Your task to perform on an android device: turn off location Image 0: 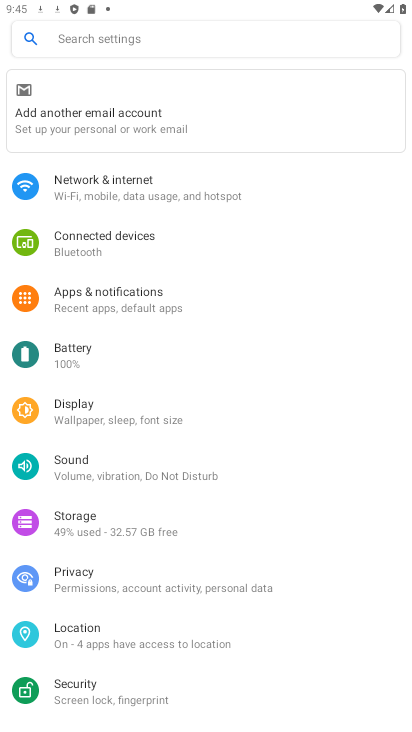
Step 0: press home button
Your task to perform on an android device: turn off location Image 1: 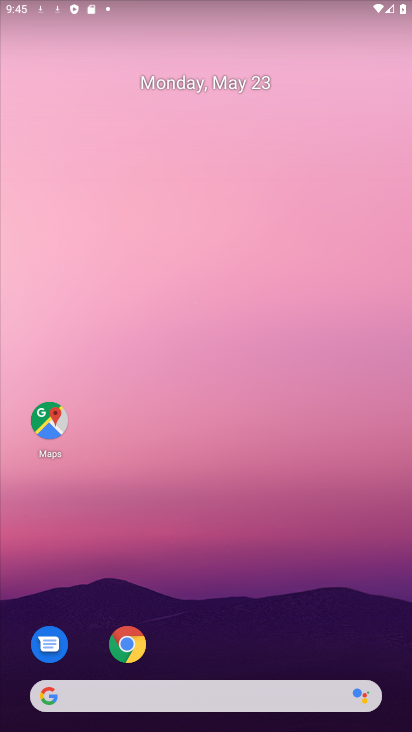
Step 1: drag from (254, 675) to (200, 171)
Your task to perform on an android device: turn off location Image 2: 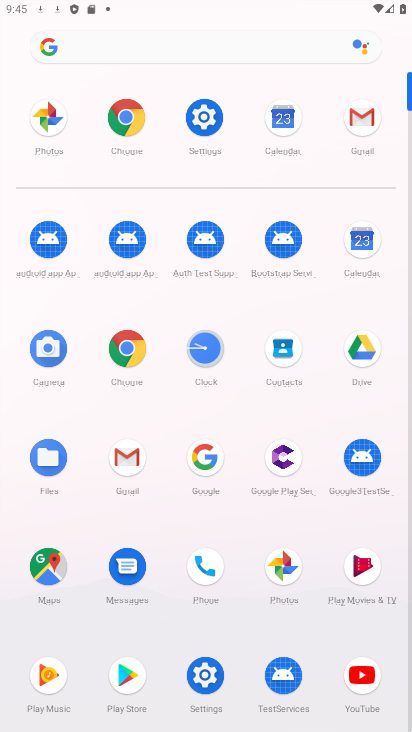
Step 2: click (196, 134)
Your task to perform on an android device: turn off location Image 3: 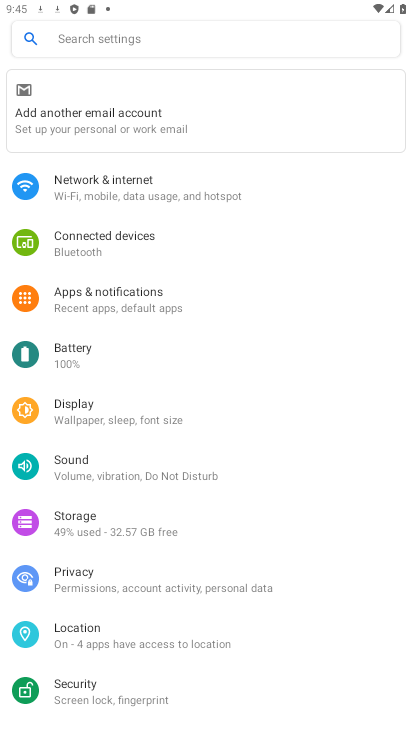
Step 3: click (142, 30)
Your task to perform on an android device: turn off location Image 4: 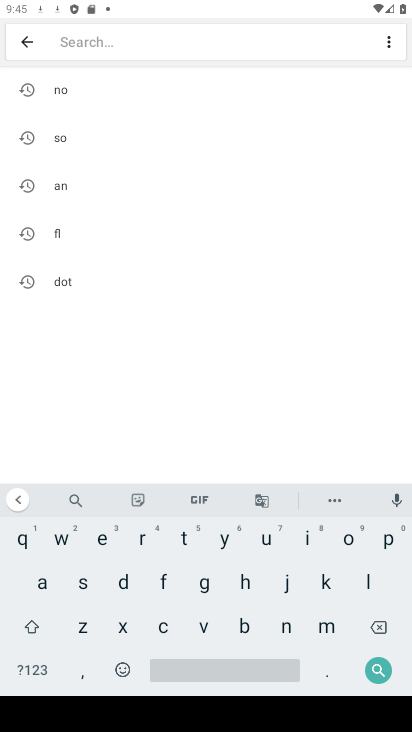
Step 4: click (365, 583)
Your task to perform on an android device: turn off location Image 5: 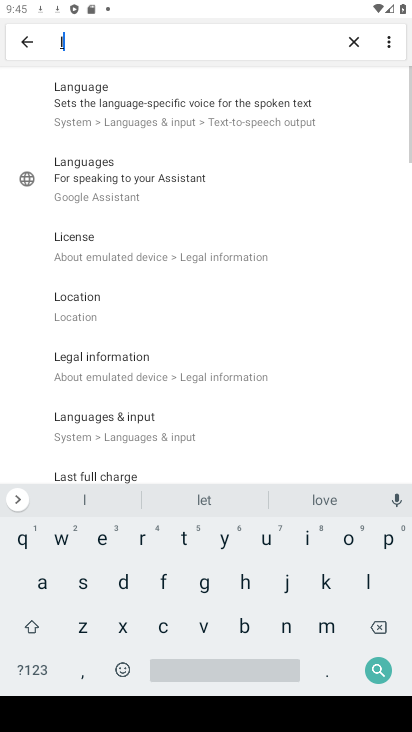
Step 5: click (120, 319)
Your task to perform on an android device: turn off location Image 6: 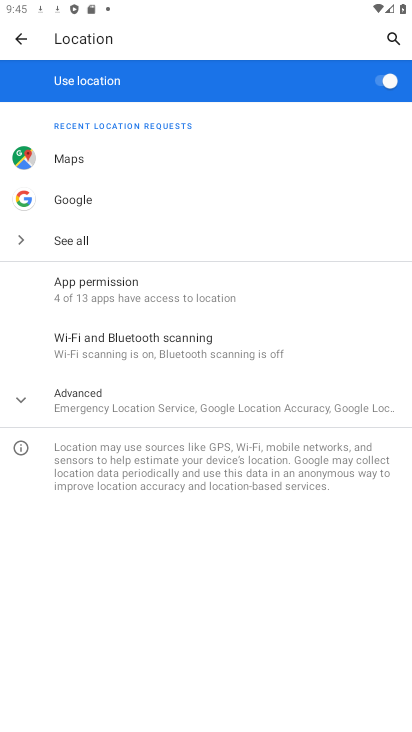
Step 6: click (389, 84)
Your task to perform on an android device: turn off location Image 7: 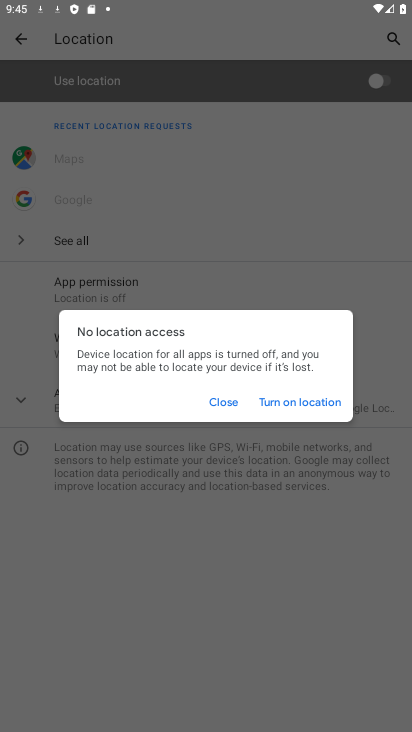
Step 7: task complete